Your task to perform on an android device: Open my contact list Image 0: 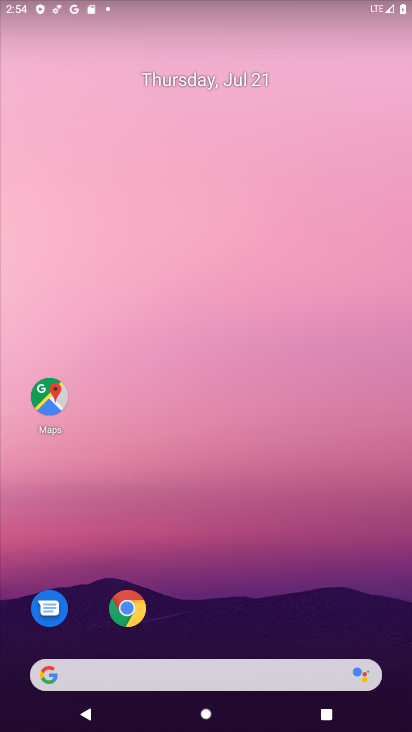
Step 0: drag from (206, 656) to (226, 15)
Your task to perform on an android device: Open my contact list Image 1: 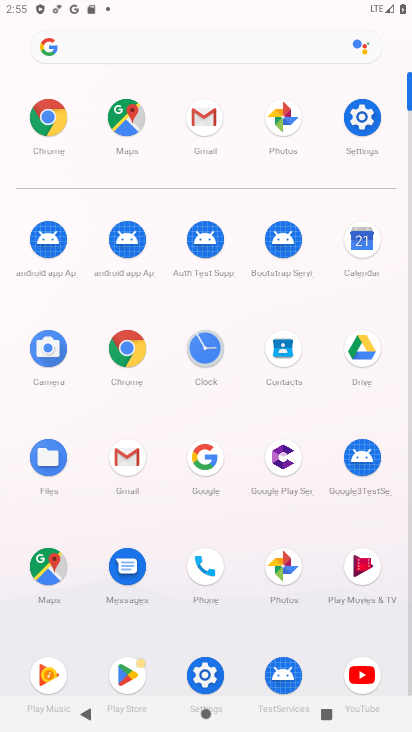
Step 1: click (207, 583)
Your task to perform on an android device: Open my contact list Image 2: 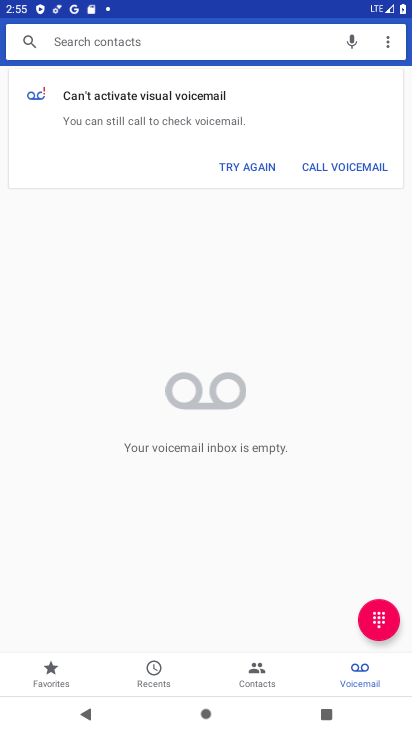
Step 2: click (263, 669)
Your task to perform on an android device: Open my contact list Image 3: 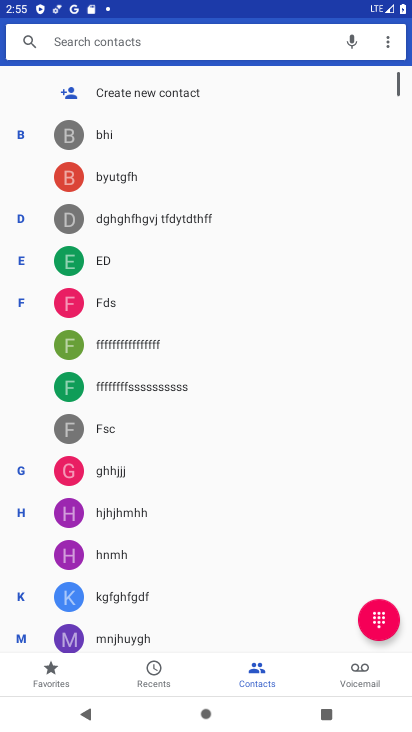
Step 3: task complete